Your task to perform on an android device: turn off wifi Image 0: 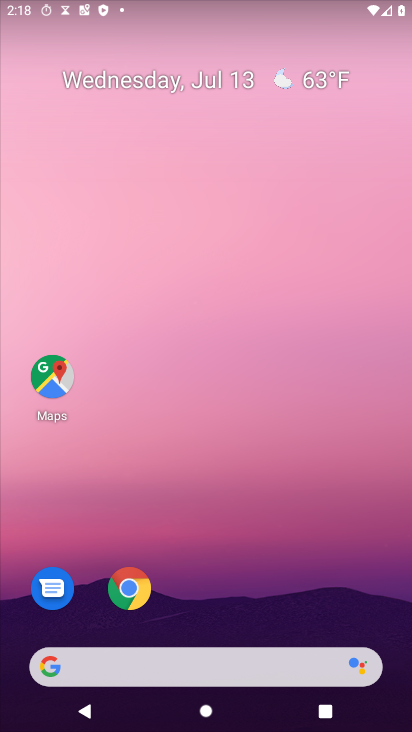
Step 0: drag from (224, 659) to (250, 24)
Your task to perform on an android device: turn off wifi Image 1: 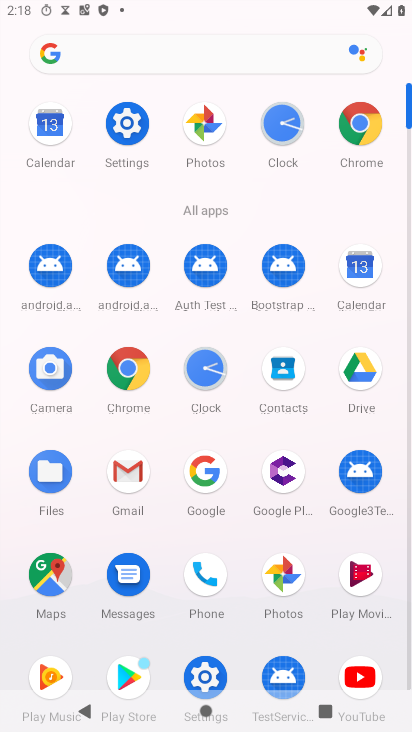
Step 1: click (121, 105)
Your task to perform on an android device: turn off wifi Image 2: 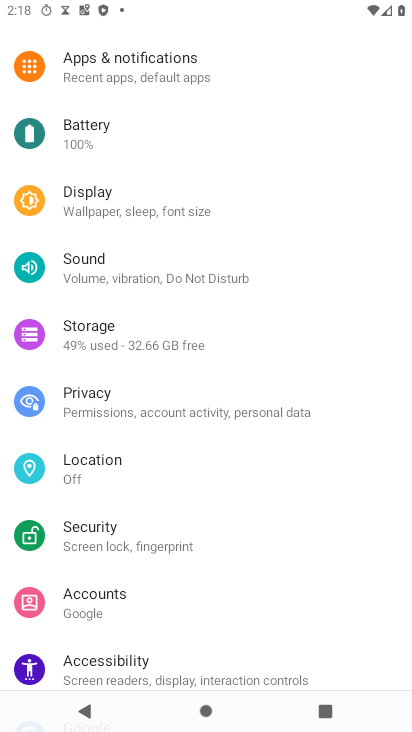
Step 2: drag from (99, 81) to (107, 346)
Your task to perform on an android device: turn off wifi Image 3: 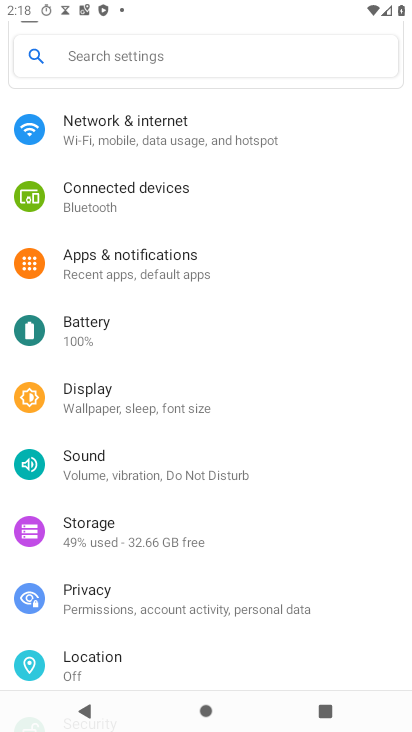
Step 3: click (140, 133)
Your task to perform on an android device: turn off wifi Image 4: 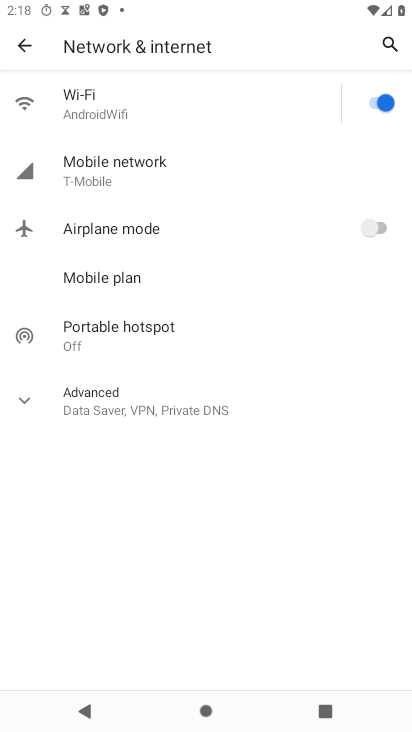
Step 4: click (365, 104)
Your task to perform on an android device: turn off wifi Image 5: 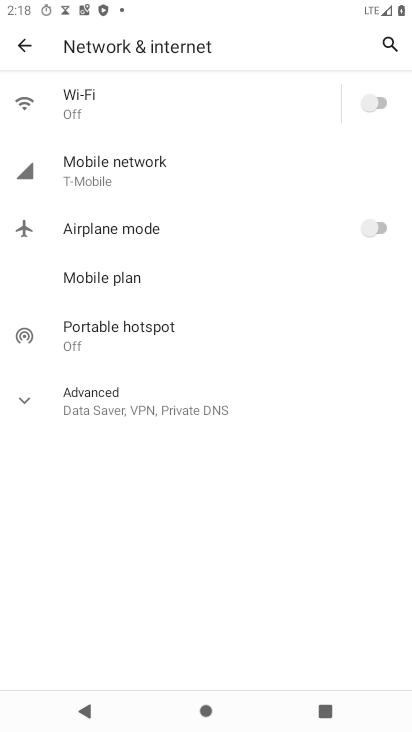
Step 5: task complete